Your task to perform on an android device: delete the emails in spam in the gmail app Image 0: 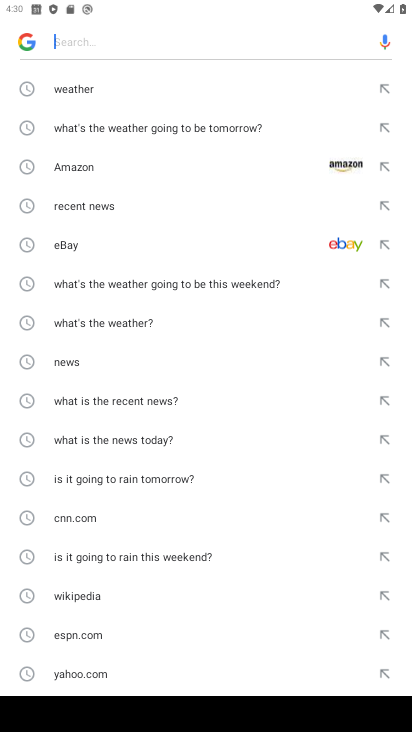
Step 0: press home button
Your task to perform on an android device: delete the emails in spam in the gmail app Image 1: 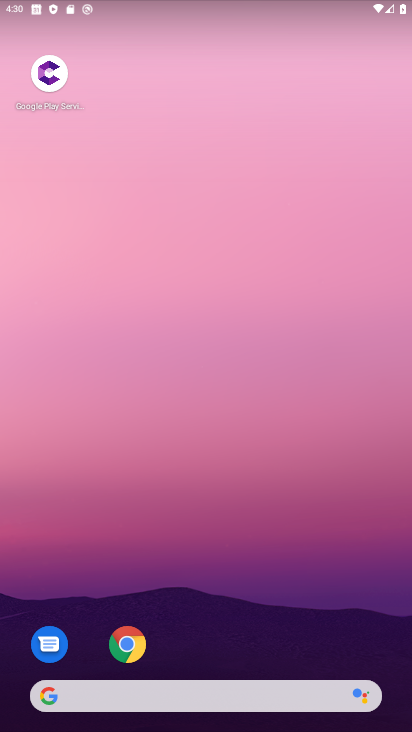
Step 1: click (123, 648)
Your task to perform on an android device: delete the emails in spam in the gmail app Image 2: 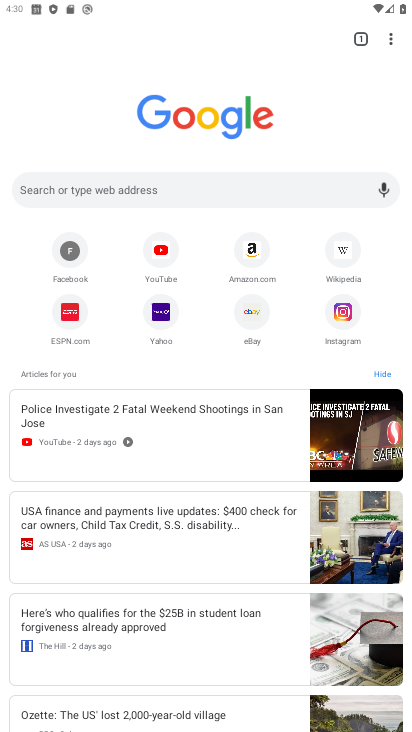
Step 2: press home button
Your task to perform on an android device: delete the emails in spam in the gmail app Image 3: 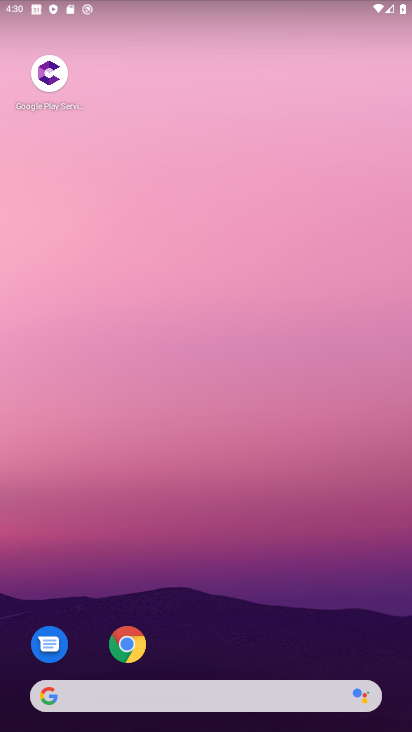
Step 3: drag from (241, 635) to (245, 158)
Your task to perform on an android device: delete the emails in spam in the gmail app Image 4: 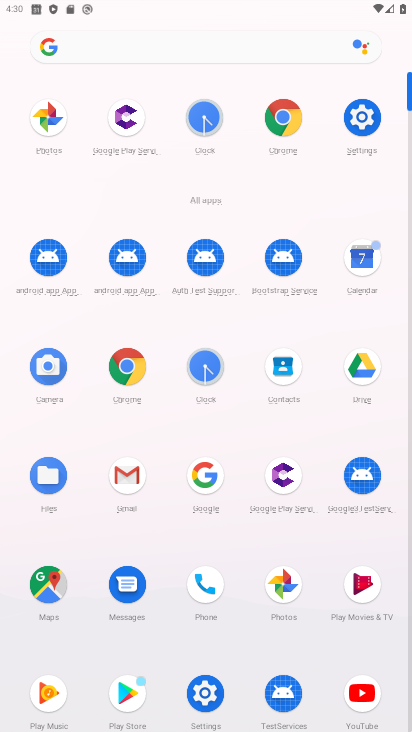
Step 4: click (120, 475)
Your task to perform on an android device: delete the emails in spam in the gmail app Image 5: 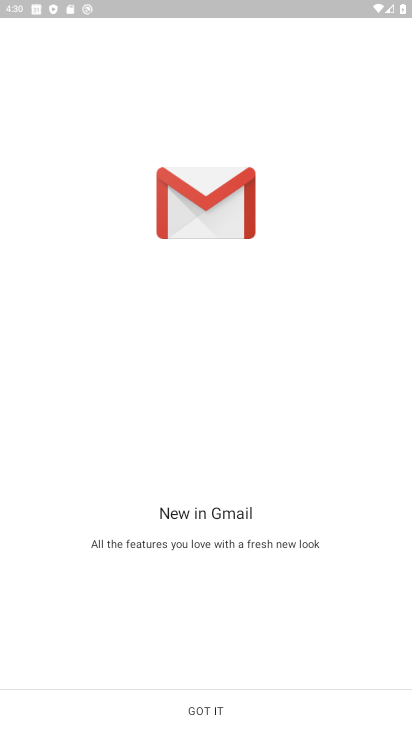
Step 5: click (211, 713)
Your task to perform on an android device: delete the emails in spam in the gmail app Image 6: 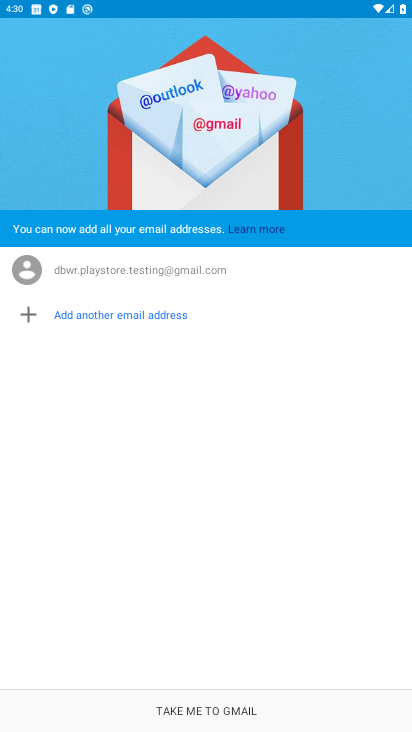
Step 6: click (215, 704)
Your task to perform on an android device: delete the emails in spam in the gmail app Image 7: 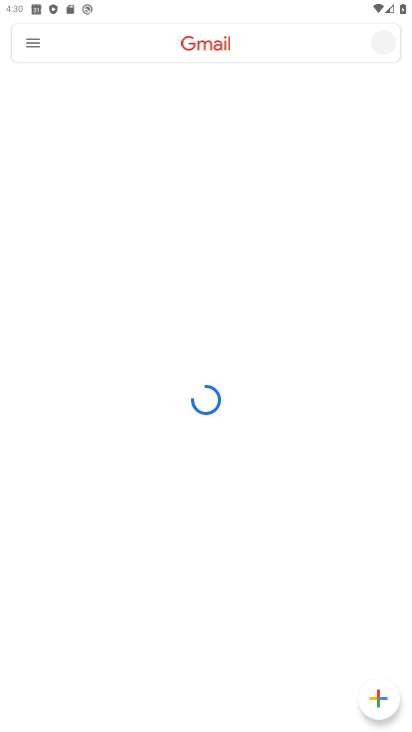
Step 7: click (31, 40)
Your task to perform on an android device: delete the emails in spam in the gmail app Image 8: 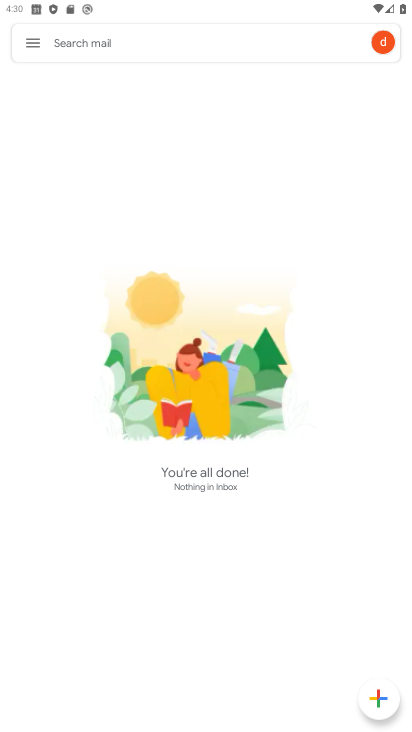
Step 8: click (36, 41)
Your task to perform on an android device: delete the emails in spam in the gmail app Image 9: 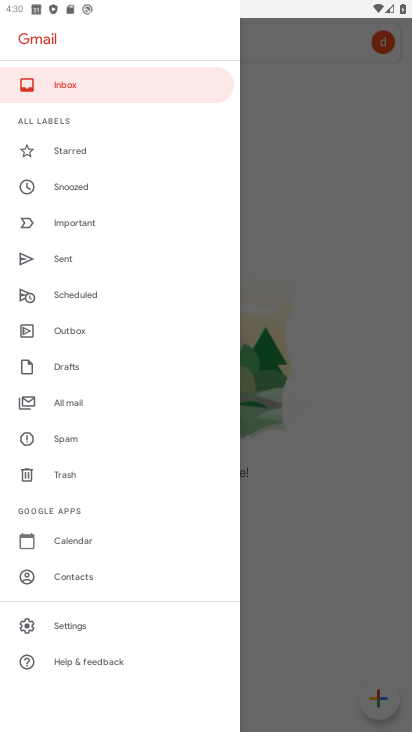
Step 9: click (63, 432)
Your task to perform on an android device: delete the emails in spam in the gmail app Image 10: 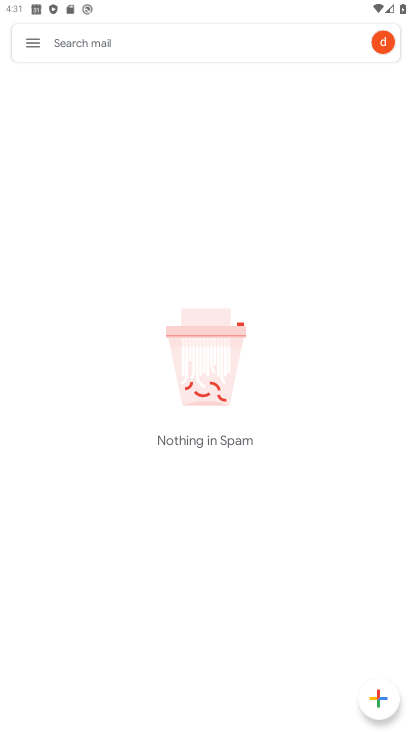
Step 10: task complete